Your task to perform on an android device: manage bookmarks in the chrome app Image 0: 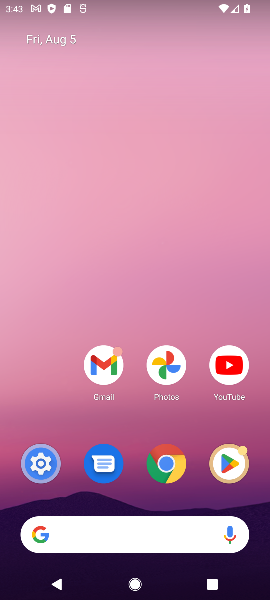
Step 0: drag from (144, 491) to (137, 220)
Your task to perform on an android device: manage bookmarks in the chrome app Image 1: 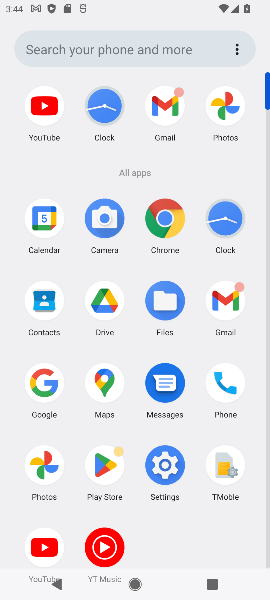
Step 1: drag from (140, 305) to (164, 158)
Your task to perform on an android device: manage bookmarks in the chrome app Image 2: 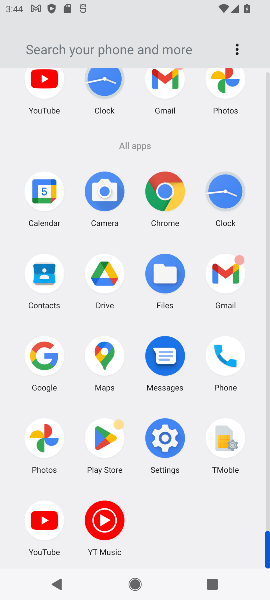
Step 2: click (159, 193)
Your task to perform on an android device: manage bookmarks in the chrome app Image 3: 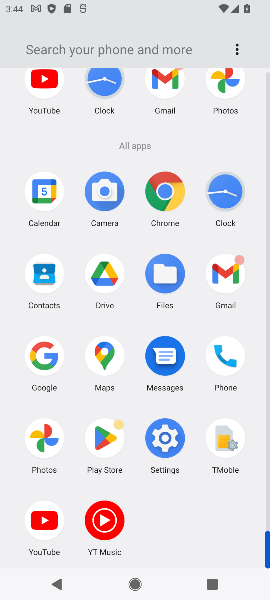
Step 3: click (159, 193)
Your task to perform on an android device: manage bookmarks in the chrome app Image 4: 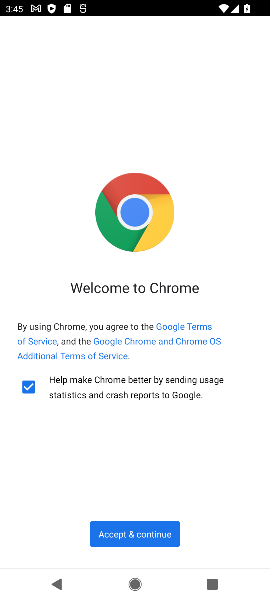
Step 4: click (140, 338)
Your task to perform on an android device: manage bookmarks in the chrome app Image 5: 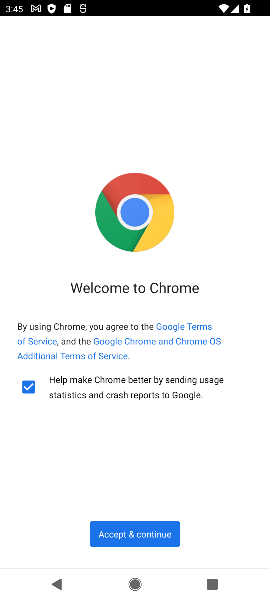
Step 5: click (137, 537)
Your task to perform on an android device: manage bookmarks in the chrome app Image 6: 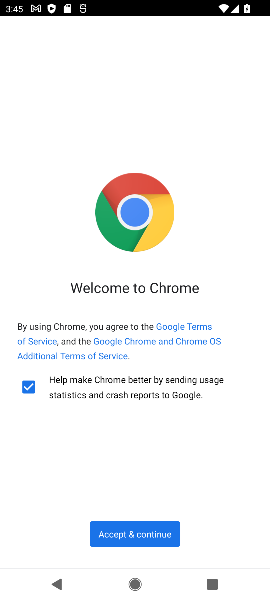
Step 6: click (137, 537)
Your task to perform on an android device: manage bookmarks in the chrome app Image 7: 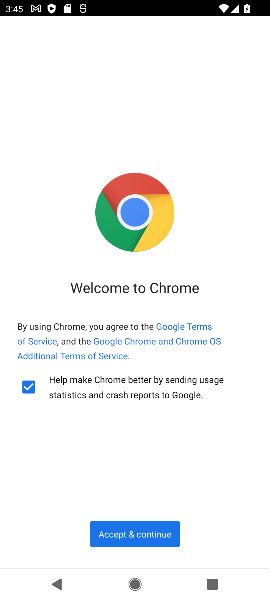
Step 7: click (137, 537)
Your task to perform on an android device: manage bookmarks in the chrome app Image 8: 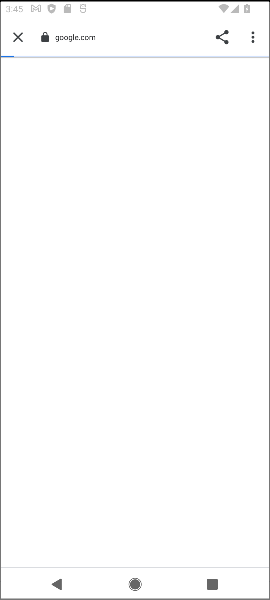
Step 8: click (138, 535)
Your task to perform on an android device: manage bookmarks in the chrome app Image 9: 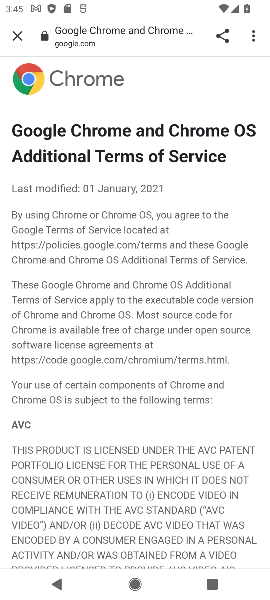
Step 9: drag from (250, 34) to (82, 241)
Your task to perform on an android device: manage bookmarks in the chrome app Image 10: 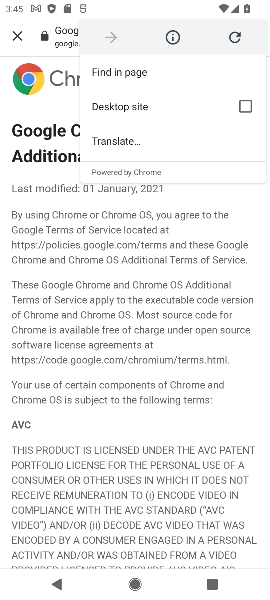
Step 10: click (82, 241)
Your task to perform on an android device: manage bookmarks in the chrome app Image 11: 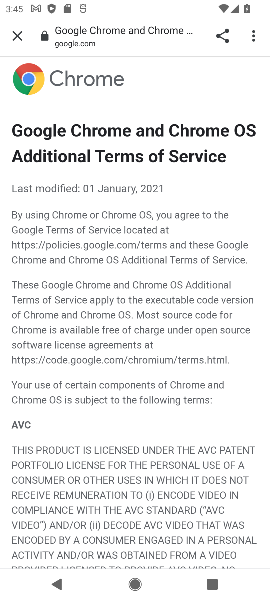
Step 11: click (17, 29)
Your task to perform on an android device: manage bookmarks in the chrome app Image 12: 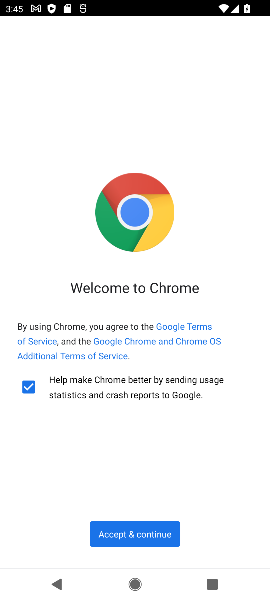
Step 12: click (125, 528)
Your task to perform on an android device: manage bookmarks in the chrome app Image 13: 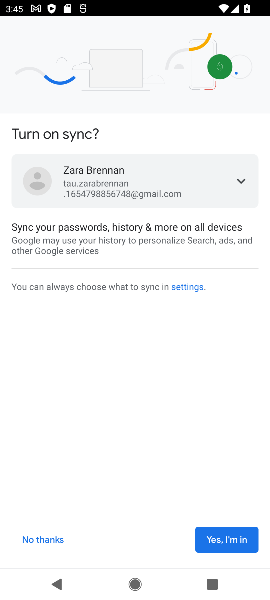
Step 13: click (229, 543)
Your task to perform on an android device: manage bookmarks in the chrome app Image 14: 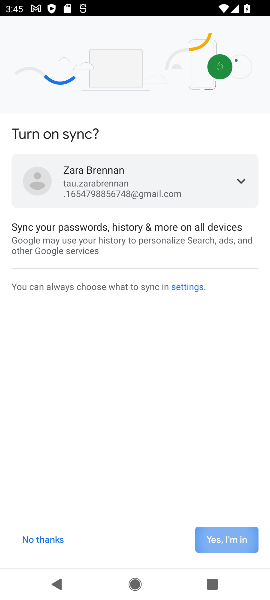
Step 14: click (228, 540)
Your task to perform on an android device: manage bookmarks in the chrome app Image 15: 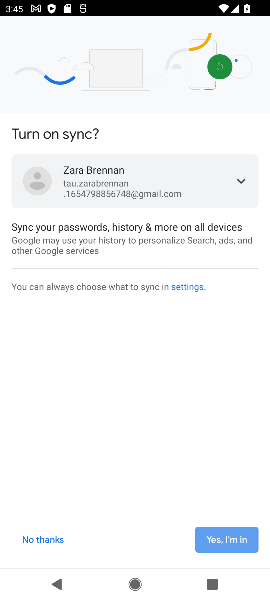
Step 15: click (228, 540)
Your task to perform on an android device: manage bookmarks in the chrome app Image 16: 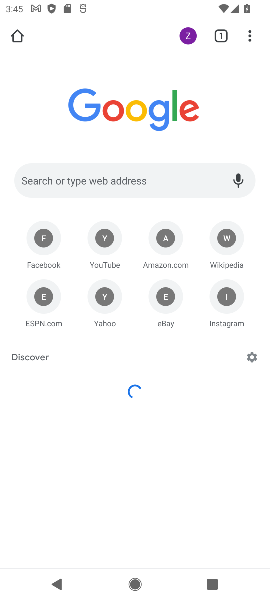
Step 16: drag from (248, 37) to (154, 227)
Your task to perform on an android device: manage bookmarks in the chrome app Image 17: 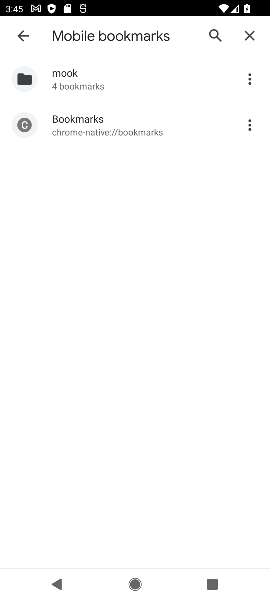
Step 17: drag from (81, 494) to (92, 261)
Your task to perform on an android device: manage bookmarks in the chrome app Image 18: 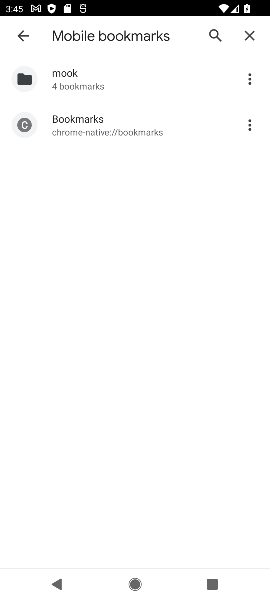
Step 18: drag from (116, 441) to (122, 279)
Your task to perform on an android device: manage bookmarks in the chrome app Image 19: 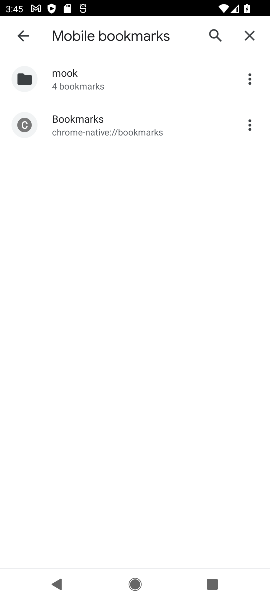
Step 19: click (95, 124)
Your task to perform on an android device: manage bookmarks in the chrome app Image 20: 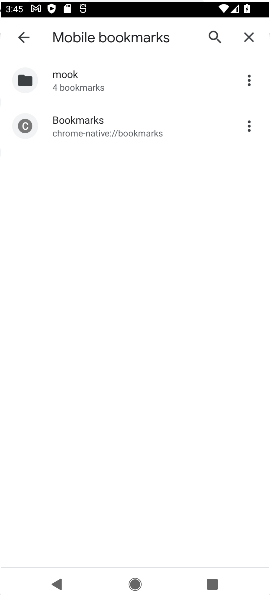
Step 20: task complete